Your task to perform on an android device: set default search engine in the chrome app Image 0: 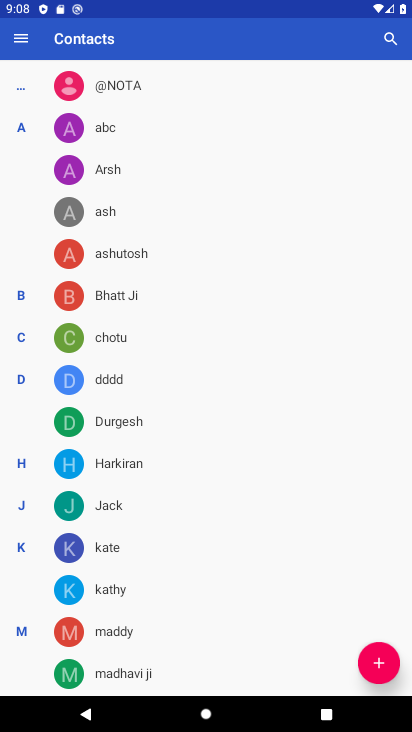
Step 0: press home button
Your task to perform on an android device: set default search engine in the chrome app Image 1: 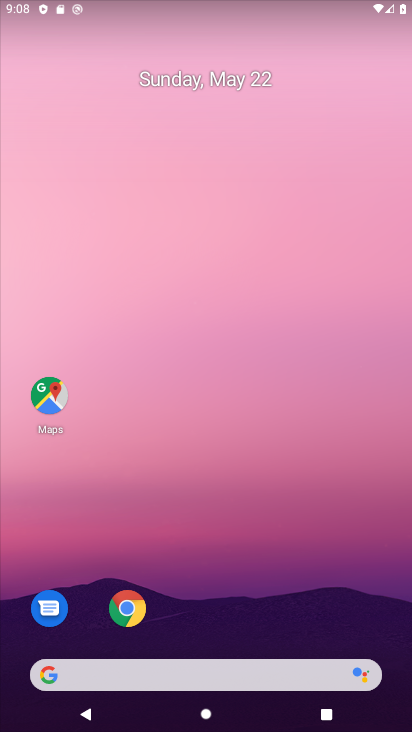
Step 1: click (131, 602)
Your task to perform on an android device: set default search engine in the chrome app Image 2: 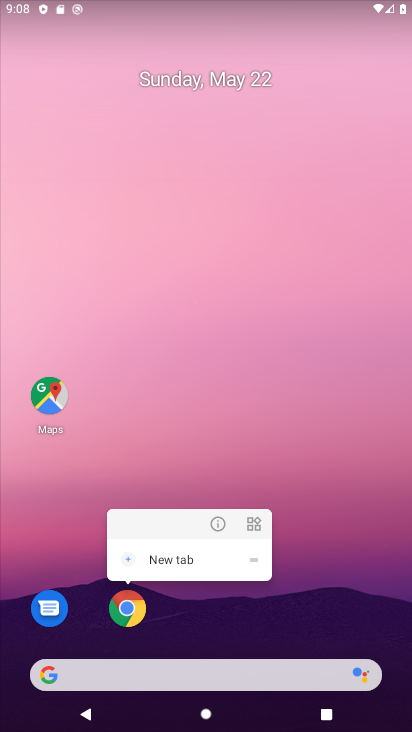
Step 2: drag from (326, 555) to (372, 12)
Your task to perform on an android device: set default search engine in the chrome app Image 3: 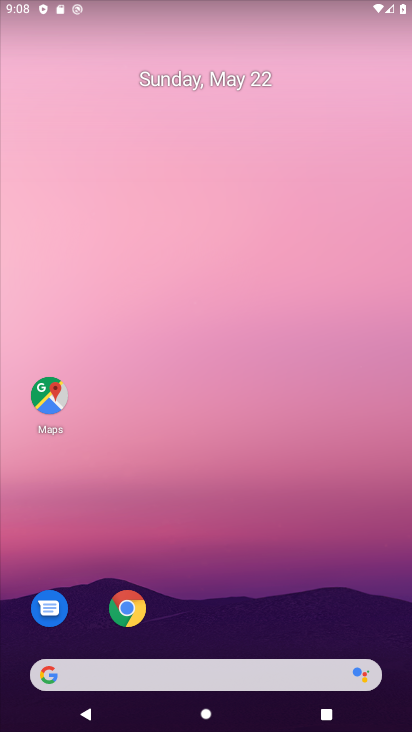
Step 3: drag from (245, 620) to (274, 108)
Your task to perform on an android device: set default search engine in the chrome app Image 4: 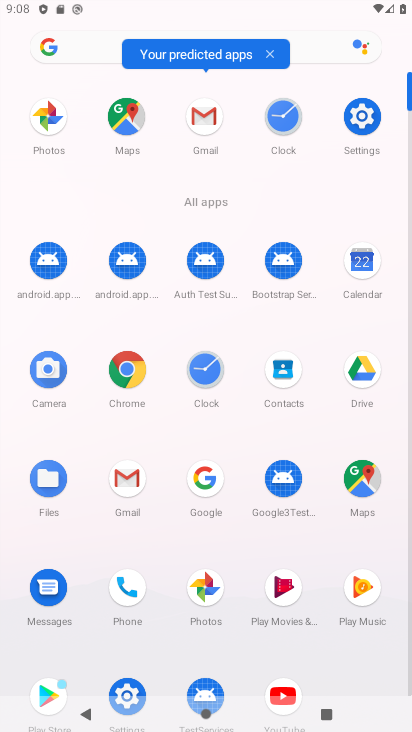
Step 4: click (142, 383)
Your task to perform on an android device: set default search engine in the chrome app Image 5: 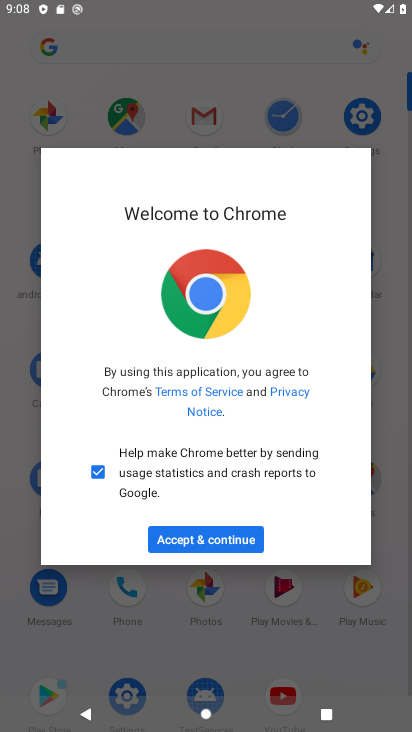
Step 5: click (214, 538)
Your task to perform on an android device: set default search engine in the chrome app Image 6: 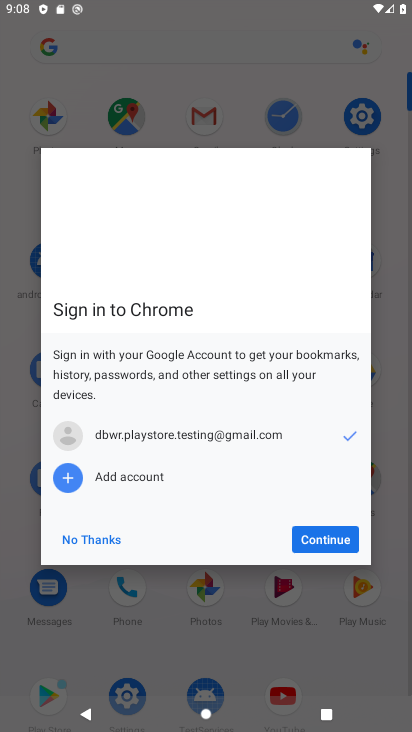
Step 6: click (309, 537)
Your task to perform on an android device: set default search engine in the chrome app Image 7: 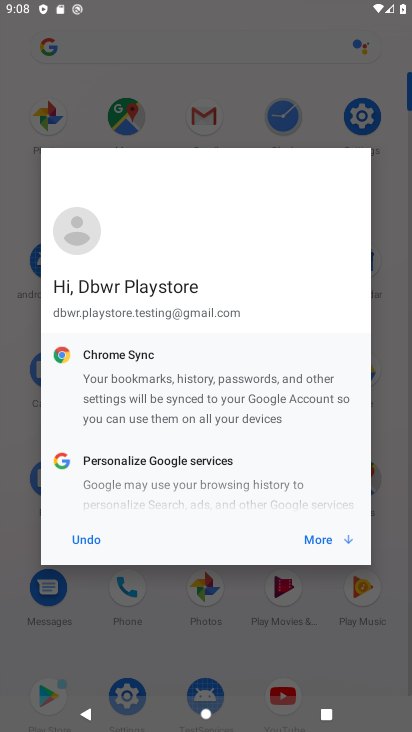
Step 7: click (330, 540)
Your task to perform on an android device: set default search engine in the chrome app Image 8: 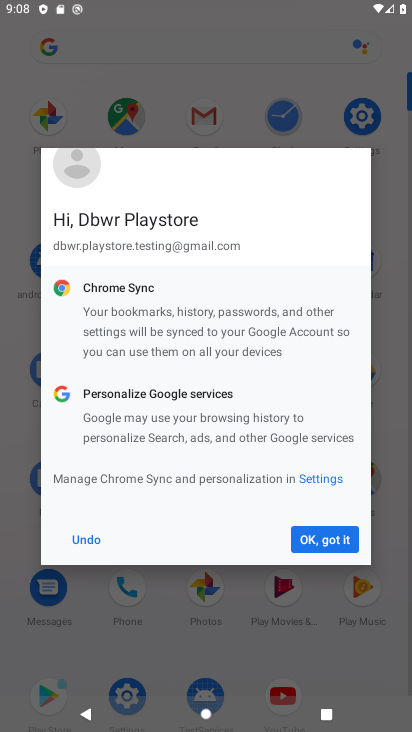
Step 8: click (330, 537)
Your task to perform on an android device: set default search engine in the chrome app Image 9: 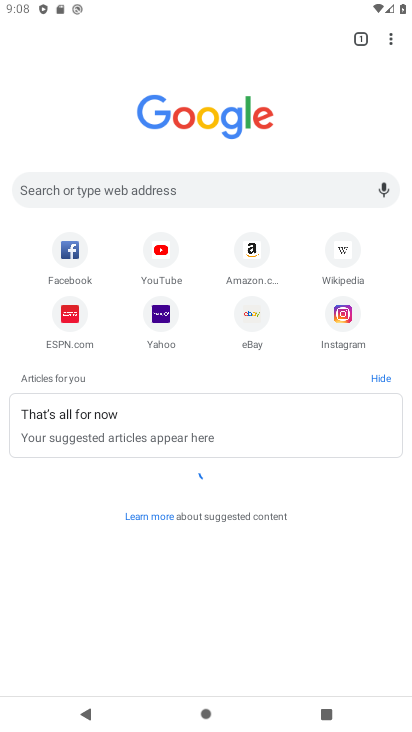
Step 9: drag from (389, 41) to (282, 330)
Your task to perform on an android device: set default search engine in the chrome app Image 10: 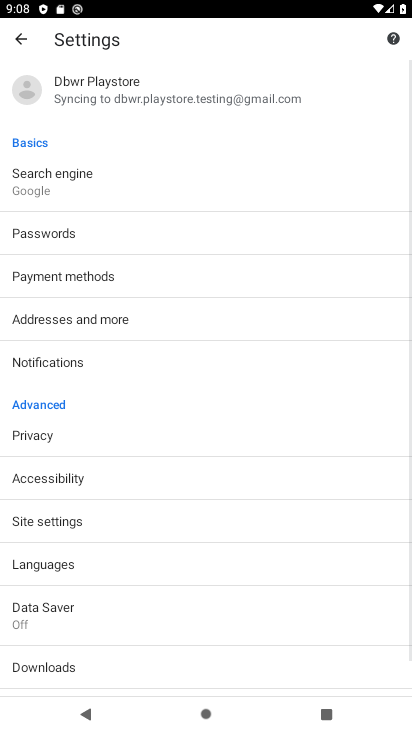
Step 10: click (128, 179)
Your task to perform on an android device: set default search engine in the chrome app Image 11: 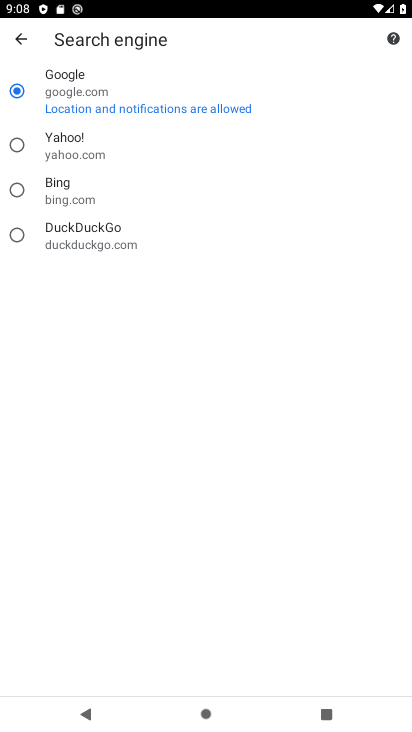
Step 11: task complete